Your task to perform on an android device: check data usage Image 0: 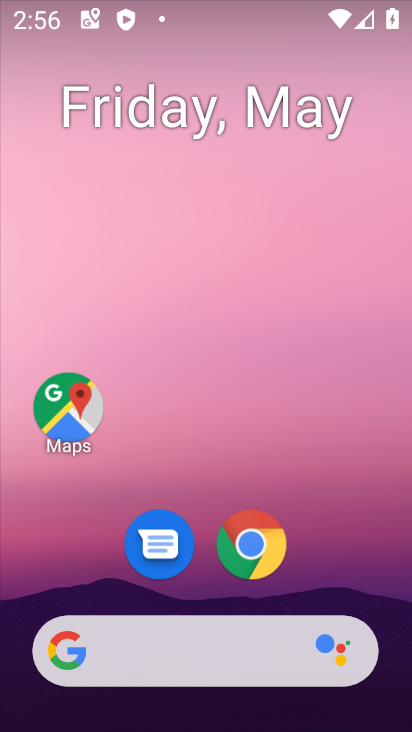
Step 0: drag from (219, 605) to (186, 226)
Your task to perform on an android device: check data usage Image 1: 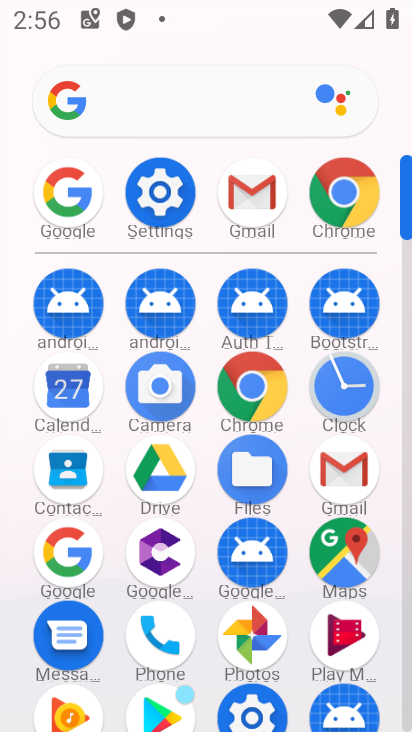
Step 1: click (160, 201)
Your task to perform on an android device: check data usage Image 2: 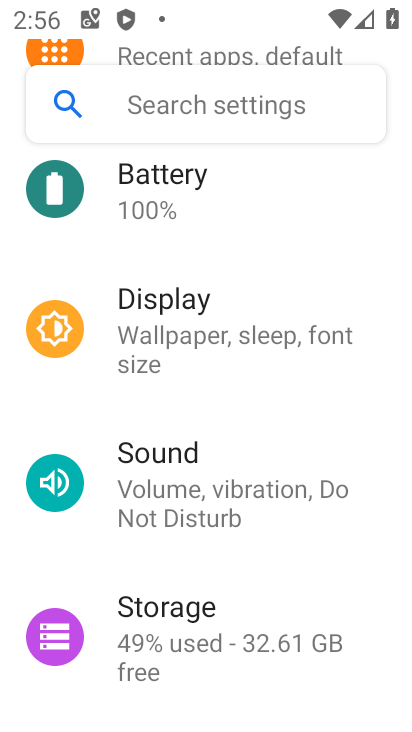
Step 2: drag from (233, 295) to (245, 705)
Your task to perform on an android device: check data usage Image 3: 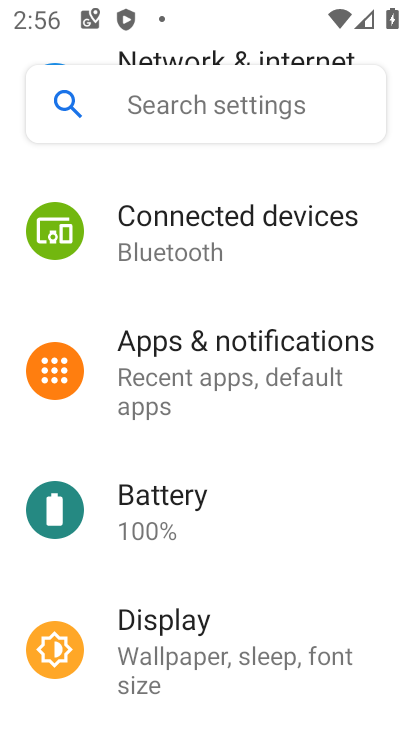
Step 3: drag from (195, 249) to (212, 668)
Your task to perform on an android device: check data usage Image 4: 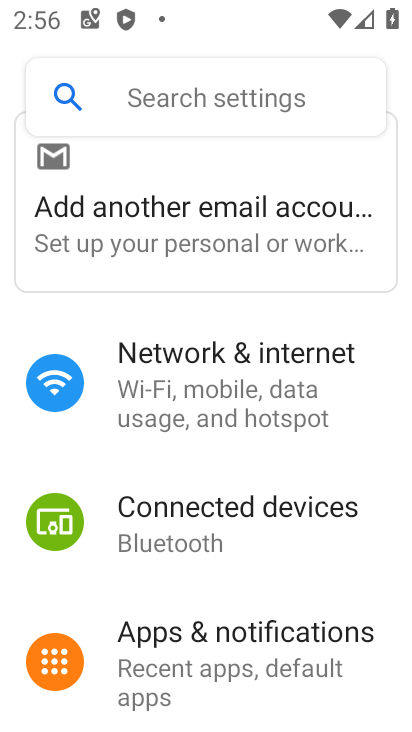
Step 4: click (184, 394)
Your task to perform on an android device: check data usage Image 5: 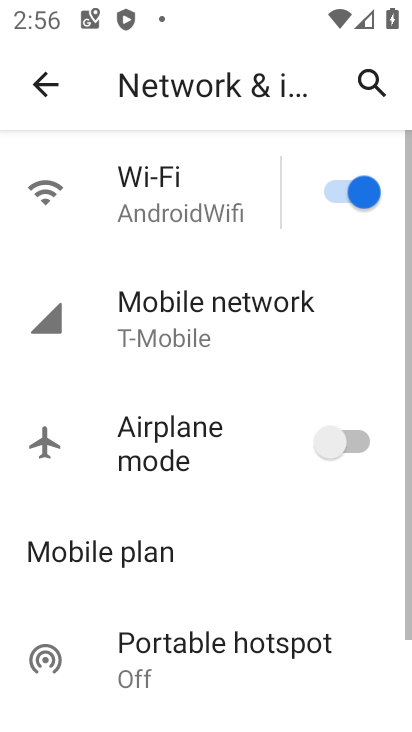
Step 5: click (185, 318)
Your task to perform on an android device: check data usage Image 6: 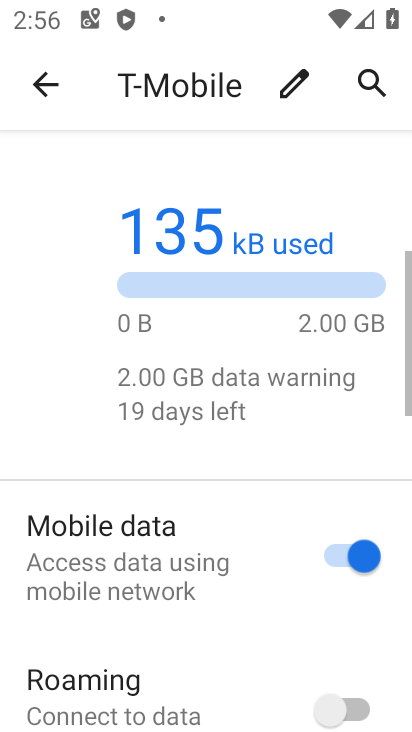
Step 6: drag from (221, 618) to (202, 330)
Your task to perform on an android device: check data usage Image 7: 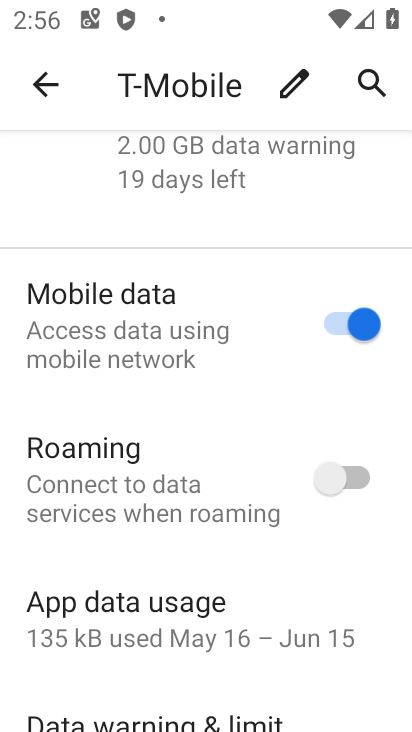
Step 7: click (177, 616)
Your task to perform on an android device: check data usage Image 8: 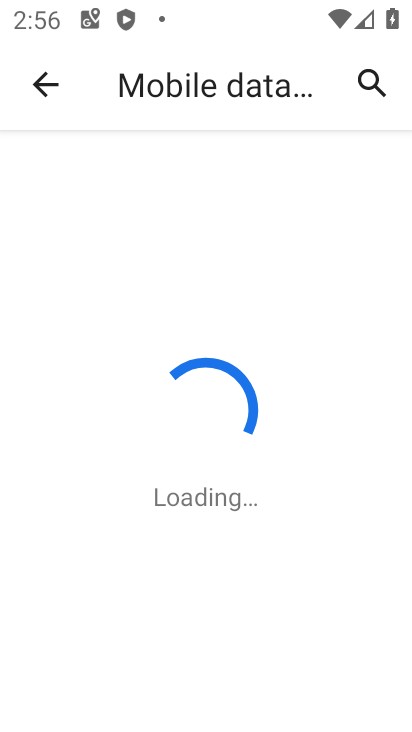
Step 8: task complete